Your task to perform on an android device: toggle notifications settings in the gmail app Image 0: 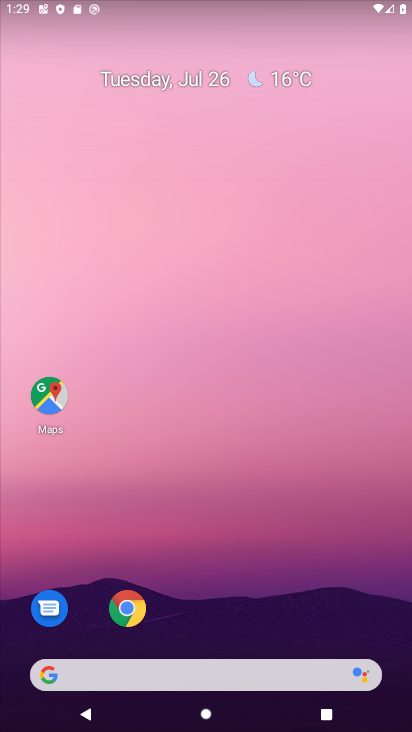
Step 0: drag from (271, 615) to (62, 0)
Your task to perform on an android device: toggle notifications settings in the gmail app Image 1: 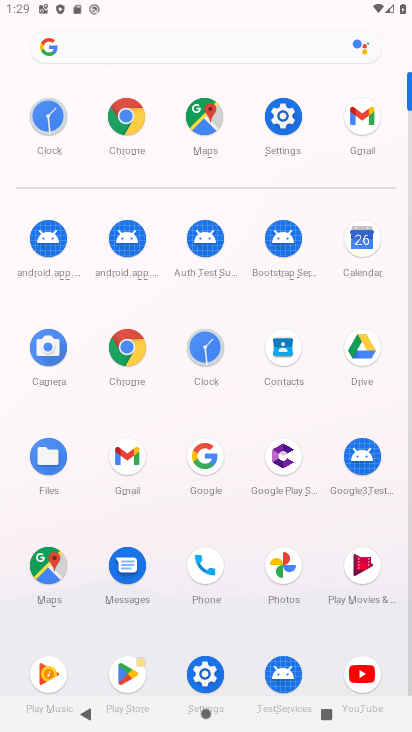
Step 1: click (354, 140)
Your task to perform on an android device: toggle notifications settings in the gmail app Image 2: 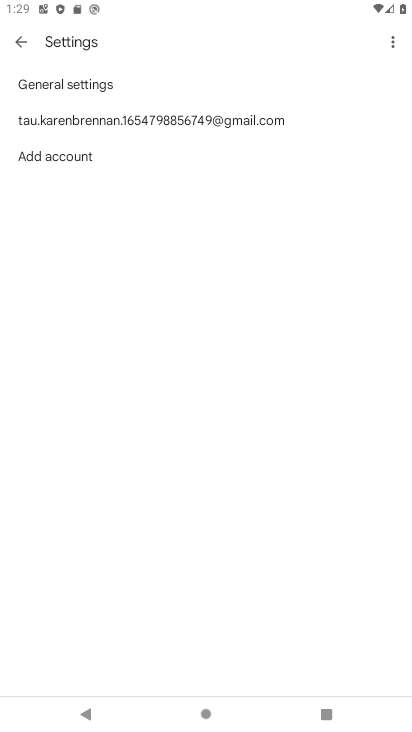
Step 2: task complete